Your task to perform on an android device: delete the emails in spam in the gmail app Image 0: 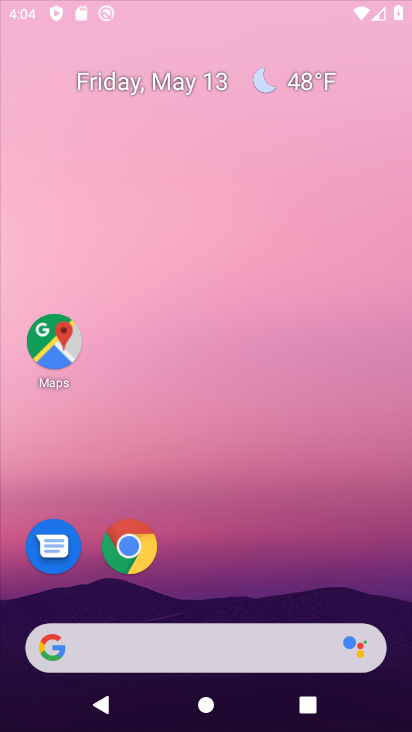
Step 0: press back button
Your task to perform on an android device: delete the emails in spam in the gmail app Image 1: 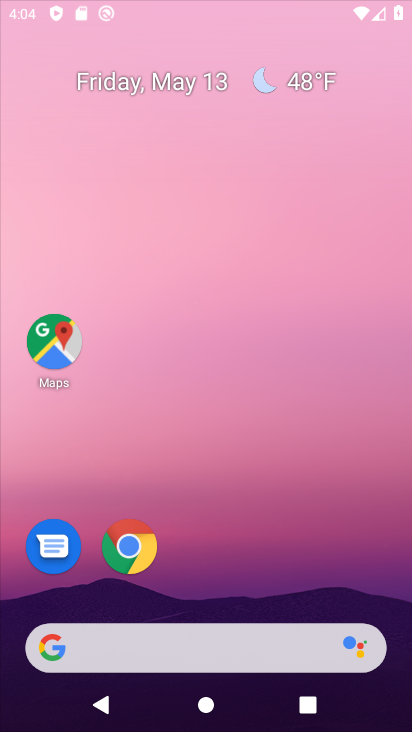
Step 1: drag from (290, 611) to (148, 64)
Your task to perform on an android device: delete the emails in spam in the gmail app Image 2: 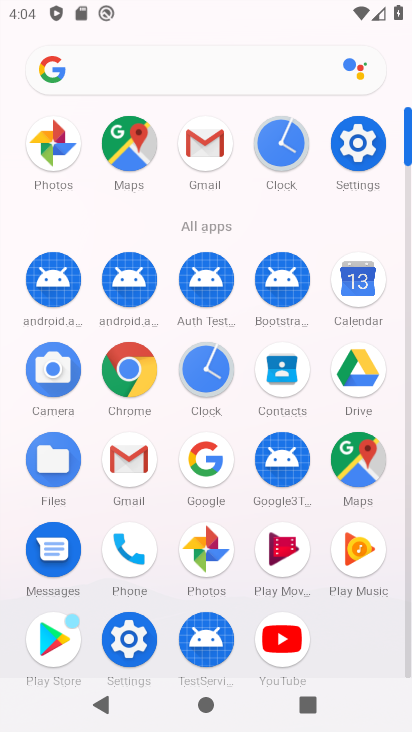
Step 2: click (137, 458)
Your task to perform on an android device: delete the emails in spam in the gmail app Image 3: 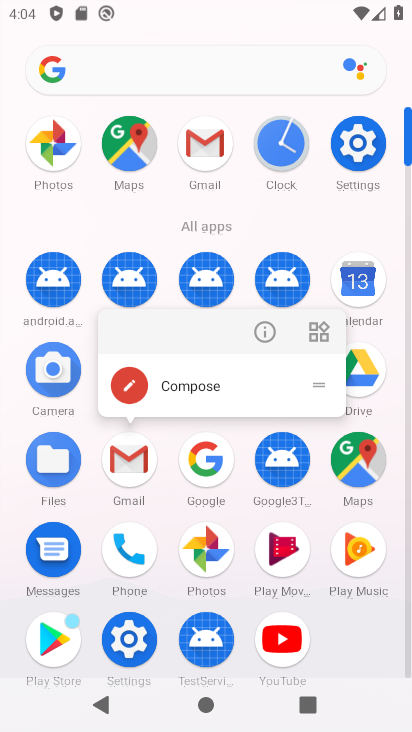
Step 3: click (118, 476)
Your task to perform on an android device: delete the emails in spam in the gmail app Image 4: 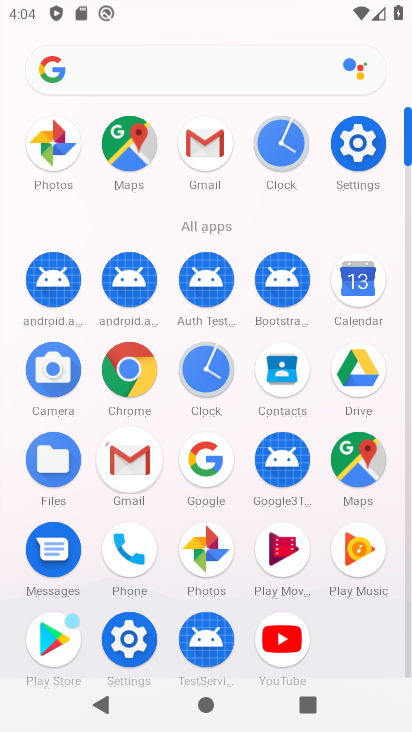
Step 4: click (118, 471)
Your task to perform on an android device: delete the emails in spam in the gmail app Image 5: 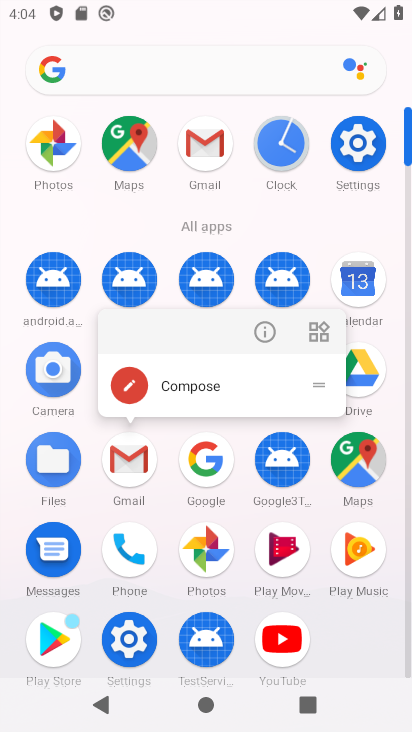
Step 5: click (121, 466)
Your task to perform on an android device: delete the emails in spam in the gmail app Image 6: 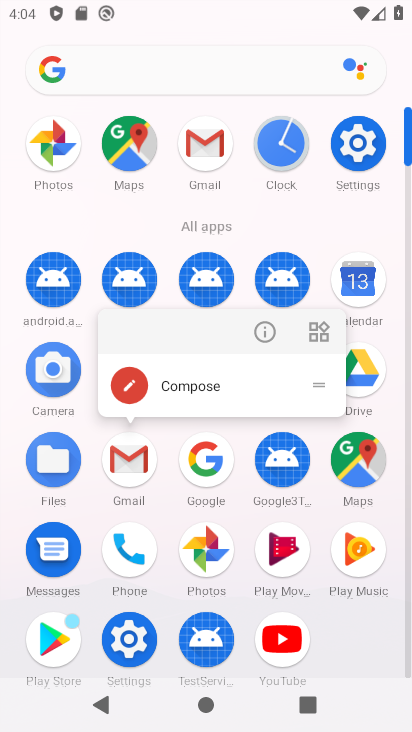
Step 6: click (123, 465)
Your task to perform on an android device: delete the emails in spam in the gmail app Image 7: 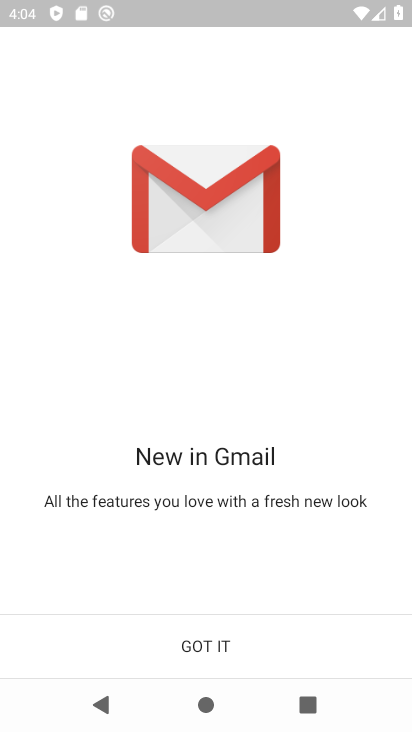
Step 7: click (201, 645)
Your task to perform on an android device: delete the emails in spam in the gmail app Image 8: 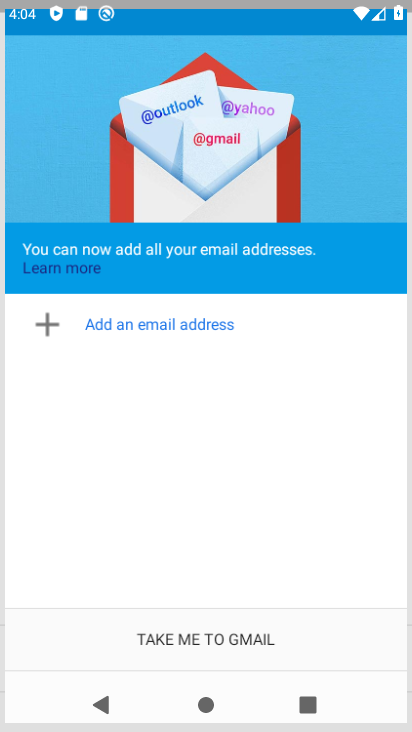
Step 8: click (207, 642)
Your task to perform on an android device: delete the emails in spam in the gmail app Image 9: 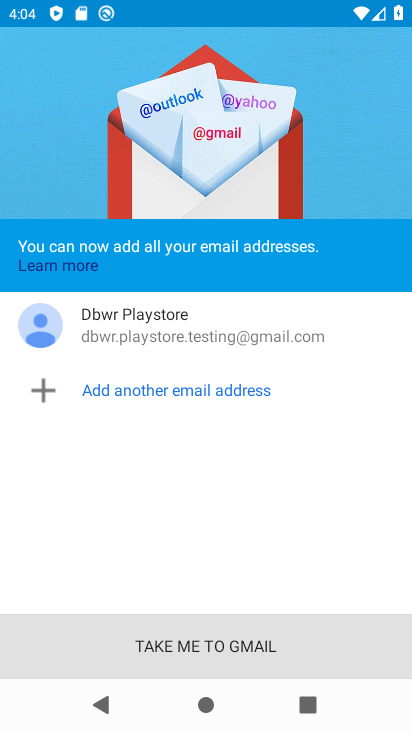
Step 9: click (209, 641)
Your task to perform on an android device: delete the emails in spam in the gmail app Image 10: 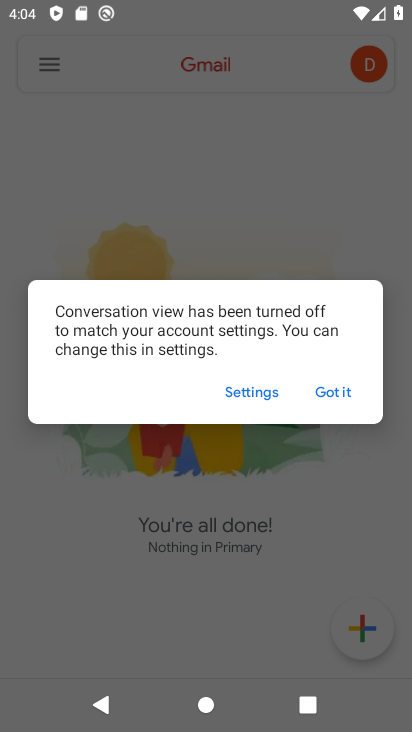
Step 10: click (329, 380)
Your task to perform on an android device: delete the emails in spam in the gmail app Image 11: 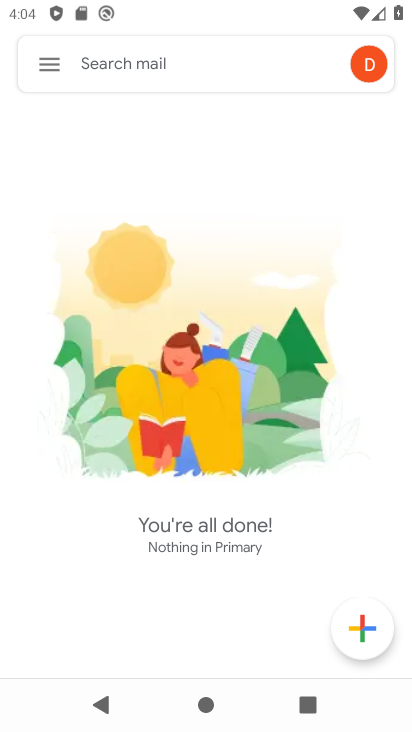
Step 11: click (62, 57)
Your task to perform on an android device: delete the emails in spam in the gmail app Image 12: 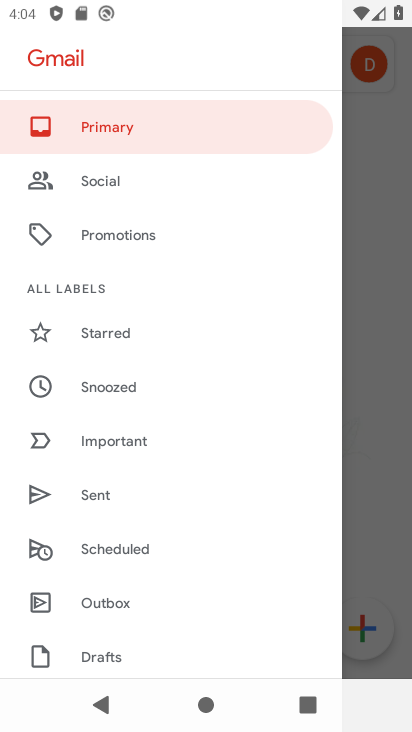
Step 12: drag from (137, 500) to (115, 116)
Your task to perform on an android device: delete the emails in spam in the gmail app Image 13: 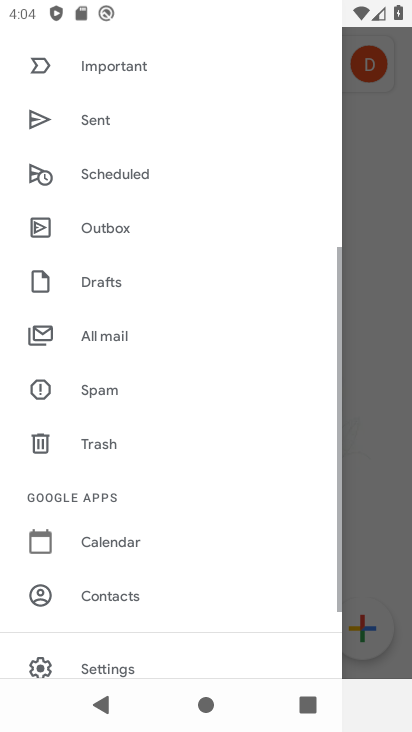
Step 13: drag from (107, 455) to (112, 186)
Your task to perform on an android device: delete the emails in spam in the gmail app Image 14: 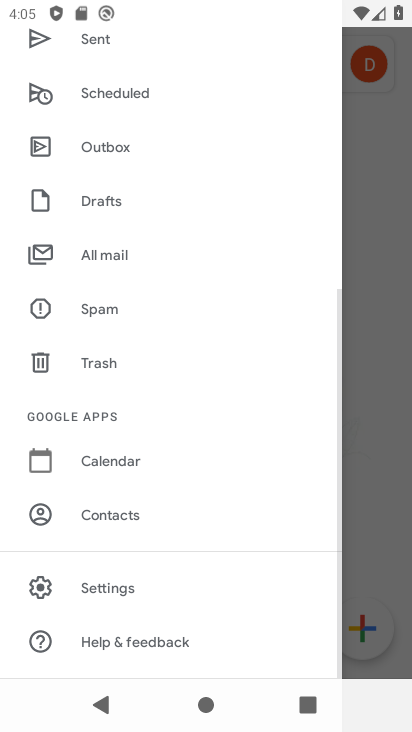
Step 14: click (109, 251)
Your task to perform on an android device: delete the emails in spam in the gmail app Image 15: 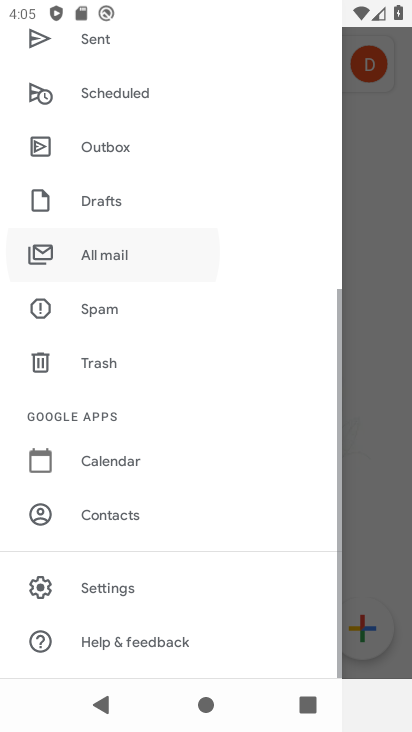
Step 15: click (110, 251)
Your task to perform on an android device: delete the emails in spam in the gmail app Image 16: 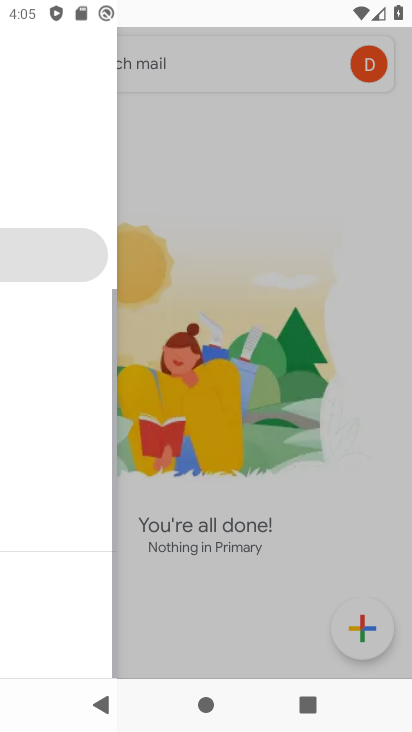
Step 16: click (110, 251)
Your task to perform on an android device: delete the emails in spam in the gmail app Image 17: 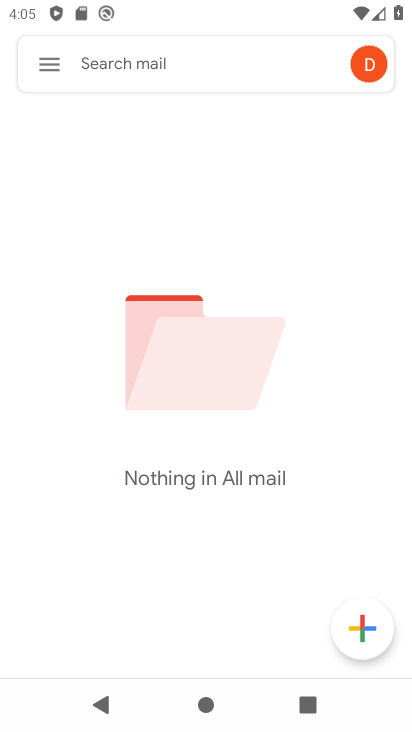
Step 17: task complete